Your task to perform on an android device: set an alarm Image 0: 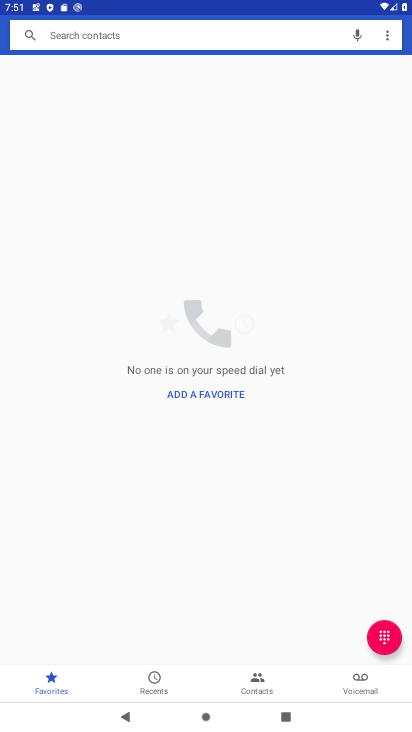
Step 0: press home button
Your task to perform on an android device: set an alarm Image 1: 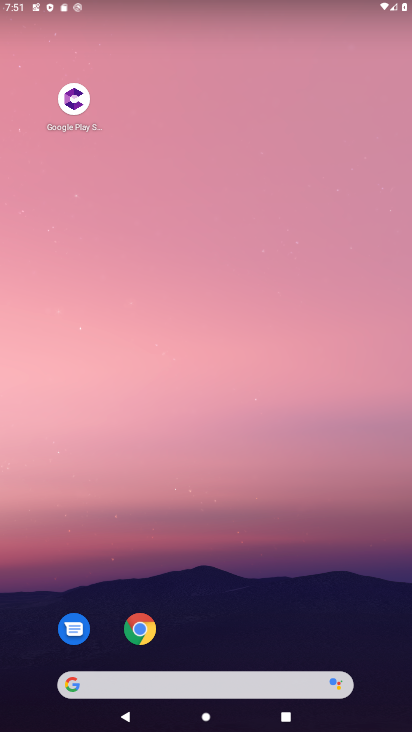
Step 1: click (366, 672)
Your task to perform on an android device: set an alarm Image 2: 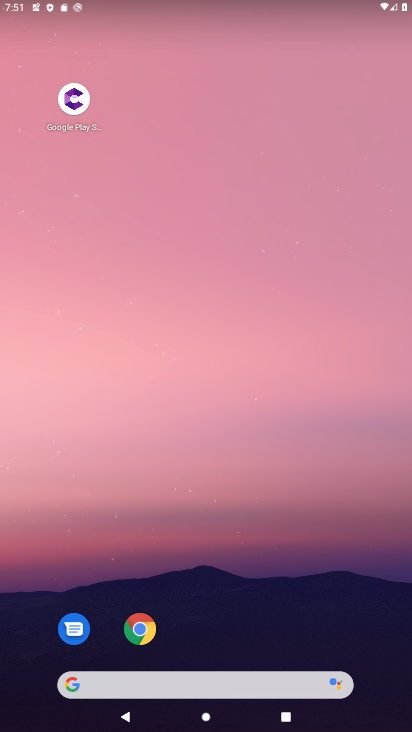
Step 2: drag from (302, 626) to (248, 43)
Your task to perform on an android device: set an alarm Image 3: 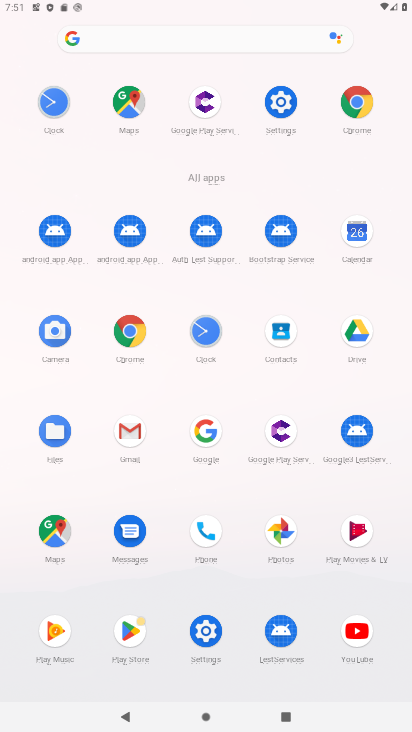
Step 3: click (201, 324)
Your task to perform on an android device: set an alarm Image 4: 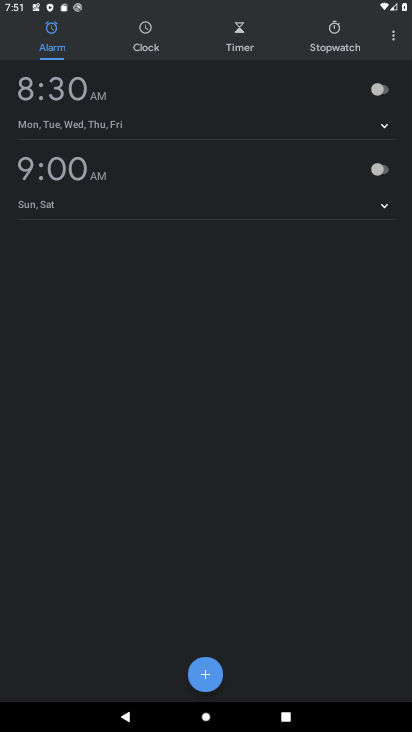
Step 4: click (200, 664)
Your task to perform on an android device: set an alarm Image 5: 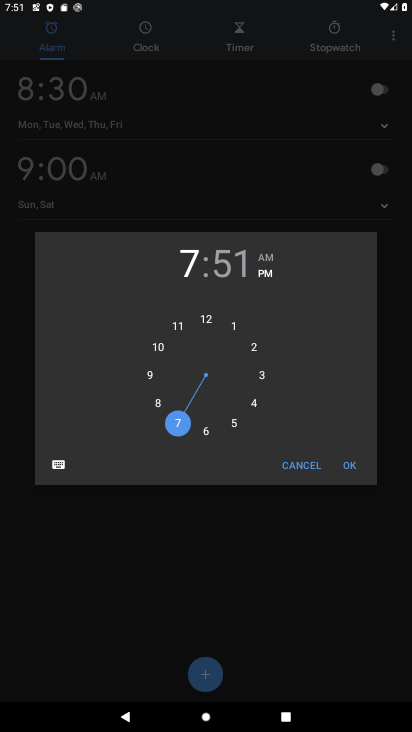
Step 5: click (351, 456)
Your task to perform on an android device: set an alarm Image 6: 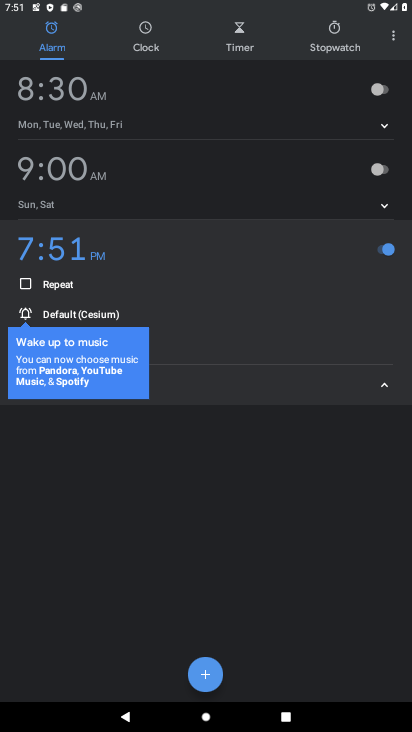
Step 6: task complete